Your task to perform on an android device: manage bookmarks in the chrome app Image 0: 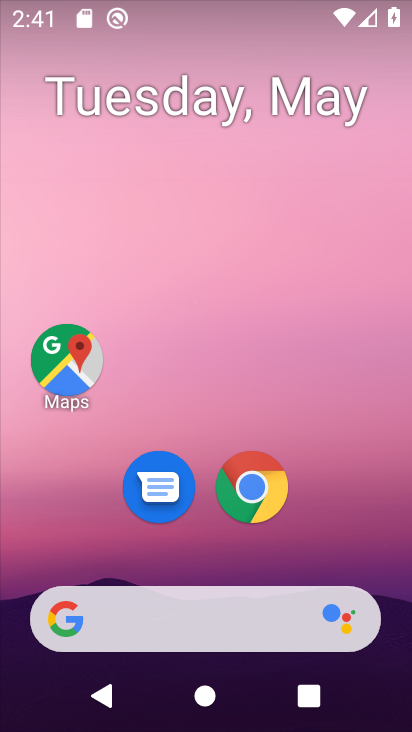
Step 0: click (260, 479)
Your task to perform on an android device: manage bookmarks in the chrome app Image 1: 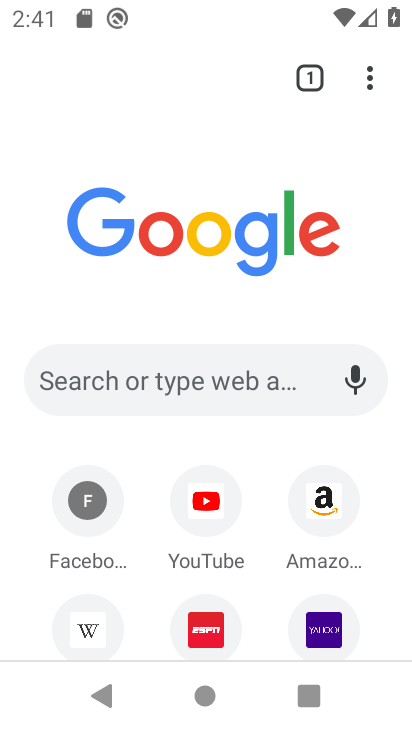
Step 1: click (367, 73)
Your task to perform on an android device: manage bookmarks in the chrome app Image 2: 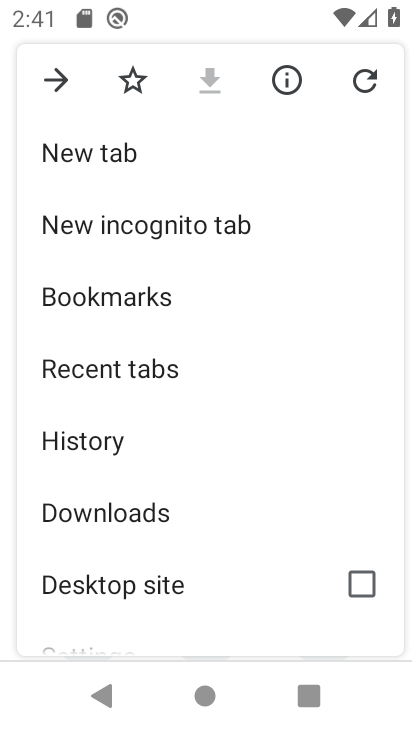
Step 2: click (94, 298)
Your task to perform on an android device: manage bookmarks in the chrome app Image 3: 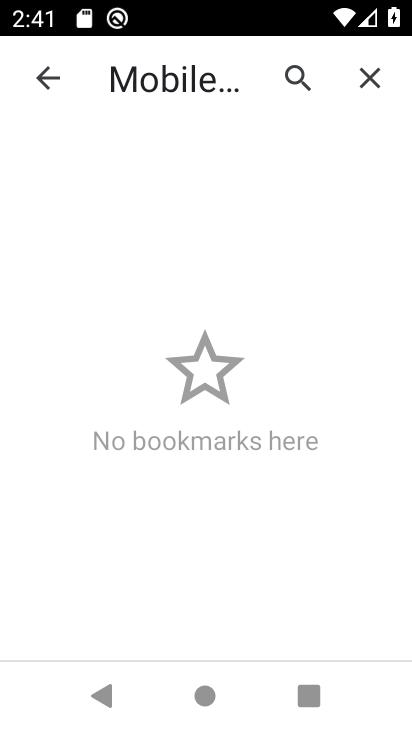
Step 3: task complete